Your task to perform on an android device: turn pop-ups off in chrome Image 0: 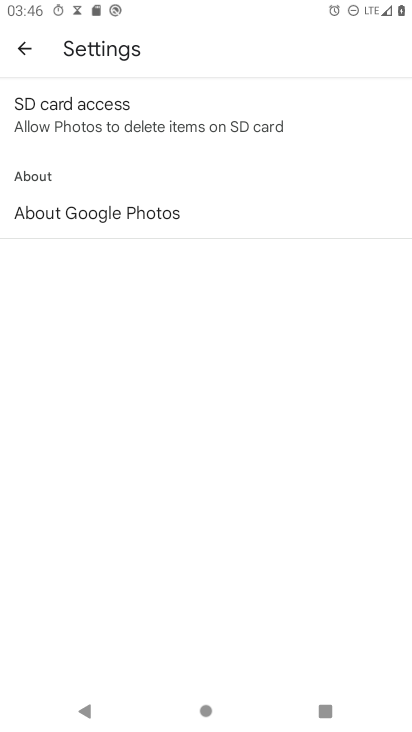
Step 0: press home button
Your task to perform on an android device: turn pop-ups off in chrome Image 1: 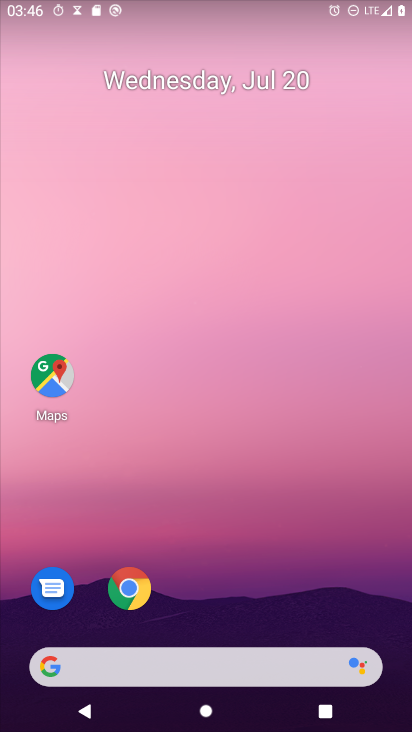
Step 1: click (134, 583)
Your task to perform on an android device: turn pop-ups off in chrome Image 2: 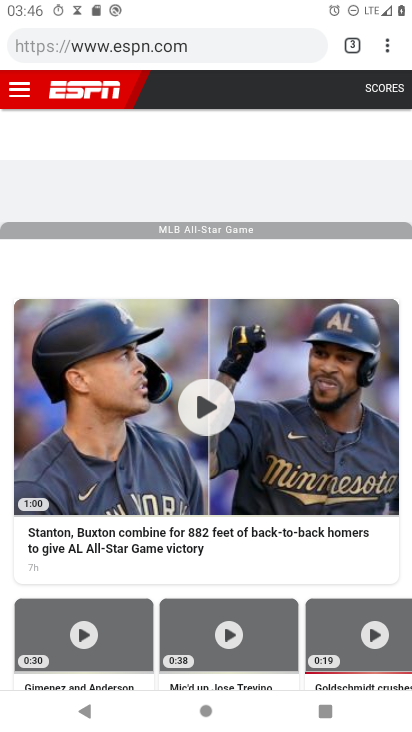
Step 2: click (380, 50)
Your task to perform on an android device: turn pop-ups off in chrome Image 3: 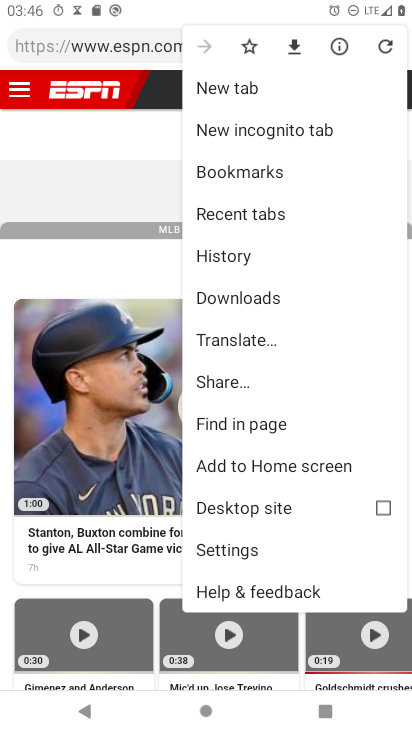
Step 3: click (227, 542)
Your task to perform on an android device: turn pop-ups off in chrome Image 4: 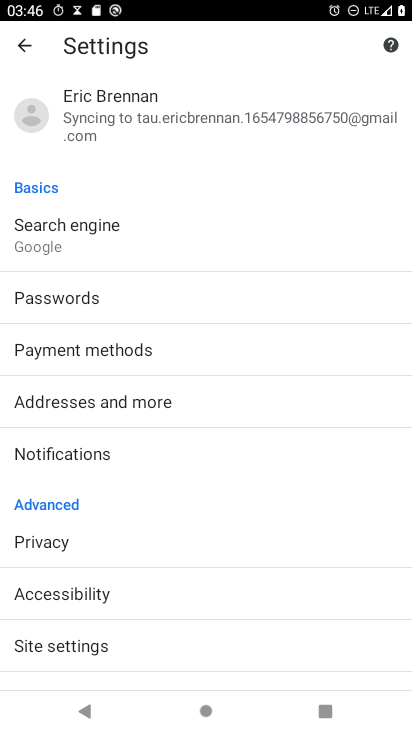
Step 4: drag from (227, 542) to (171, 212)
Your task to perform on an android device: turn pop-ups off in chrome Image 5: 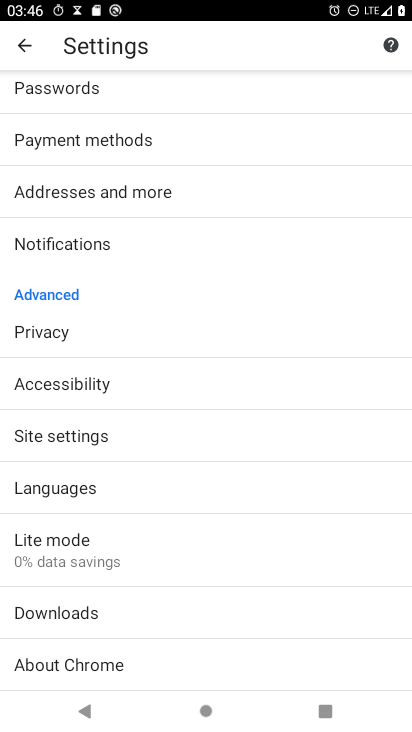
Step 5: click (60, 433)
Your task to perform on an android device: turn pop-ups off in chrome Image 6: 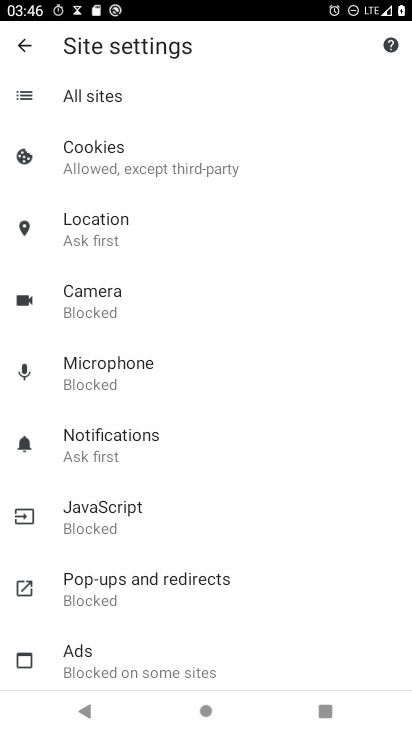
Step 6: click (129, 616)
Your task to perform on an android device: turn pop-ups off in chrome Image 7: 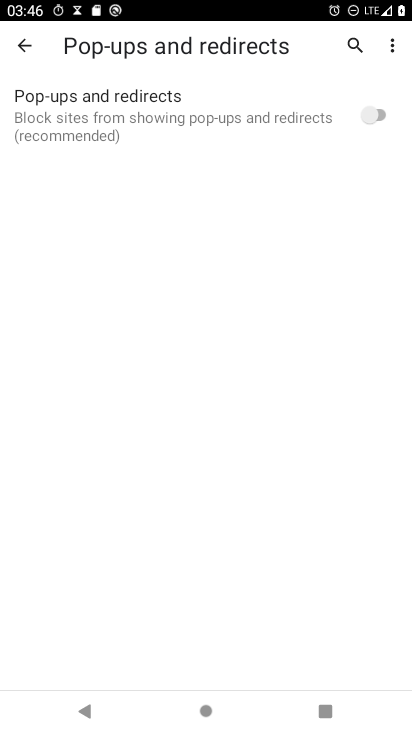
Step 7: click (366, 112)
Your task to perform on an android device: turn pop-ups off in chrome Image 8: 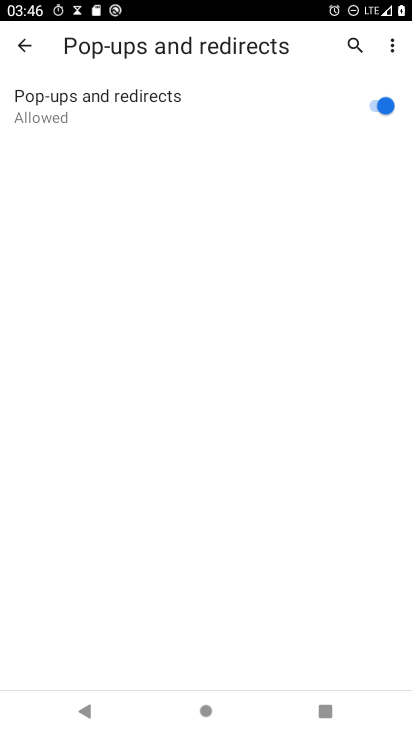
Step 8: click (366, 112)
Your task to perform on an android device: turn pop-ups off in chrome Image 9: 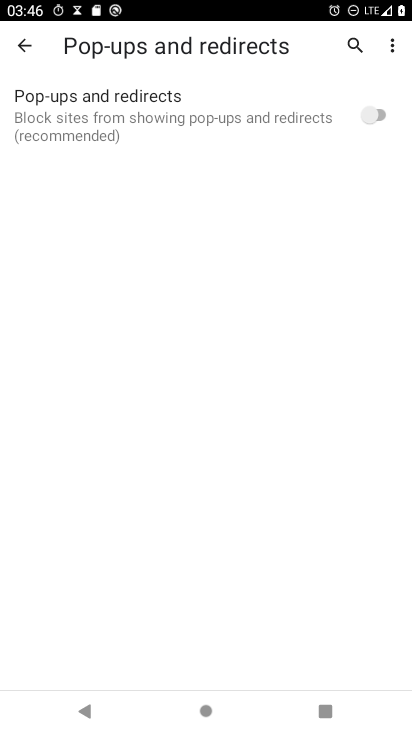
Step 9: task complete